Your task to perform on an android device: change the clock style Image 0: 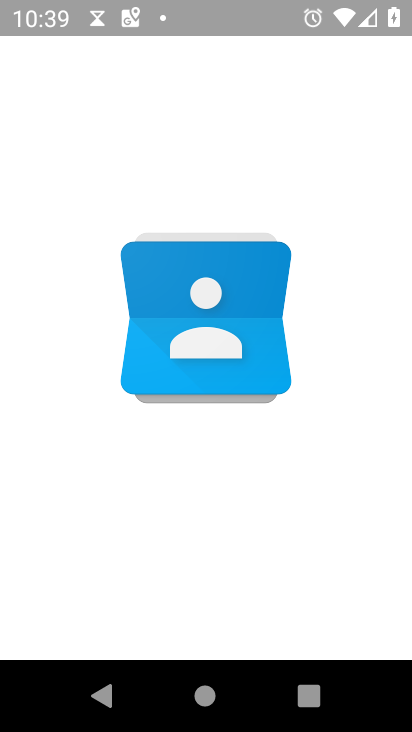
Step 0: press back button
Your task to perform on an android device: change the clock style Image 1: 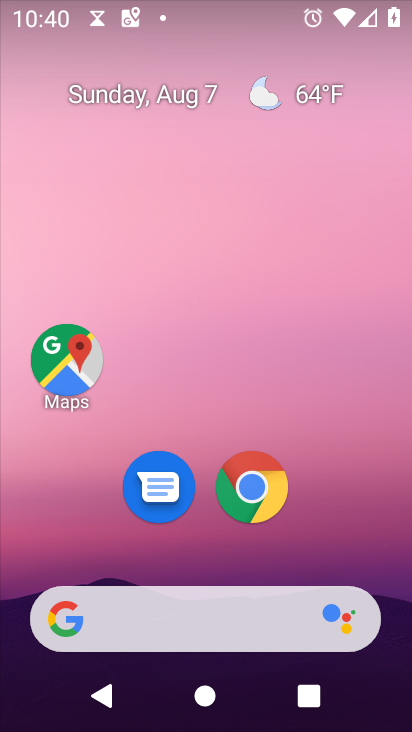
Step 1: drag from (392, 666) to (336, 104)
Your task to perform on an android device: change the clock style Image 2: 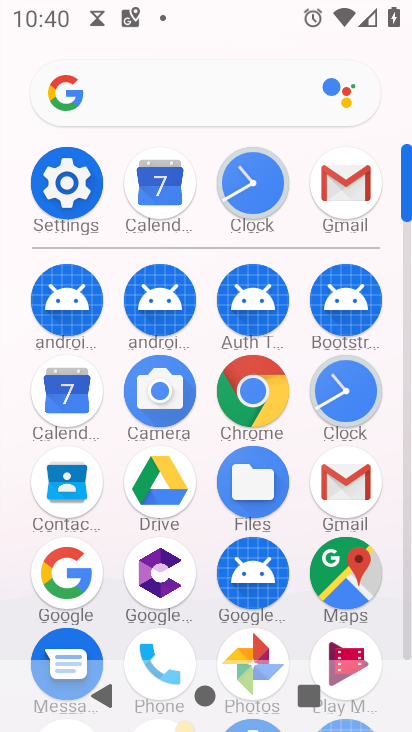
Step 2: click (332, 368)
Your task to perform on an android device: change the clock style Image 3: 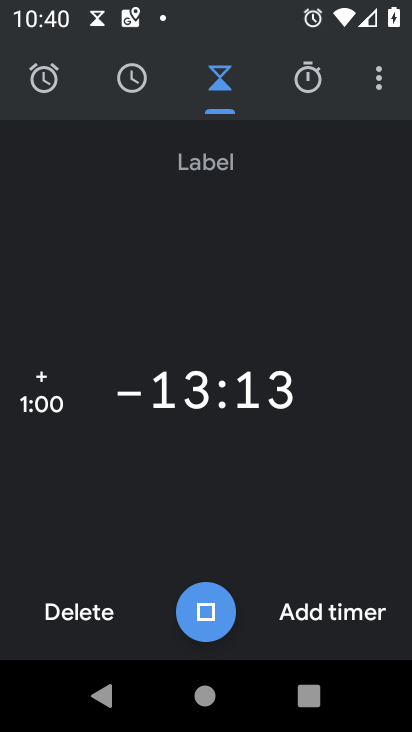
Step 3: click (376, 80)
Your task to perform on an android device: change the clock style Image 4: 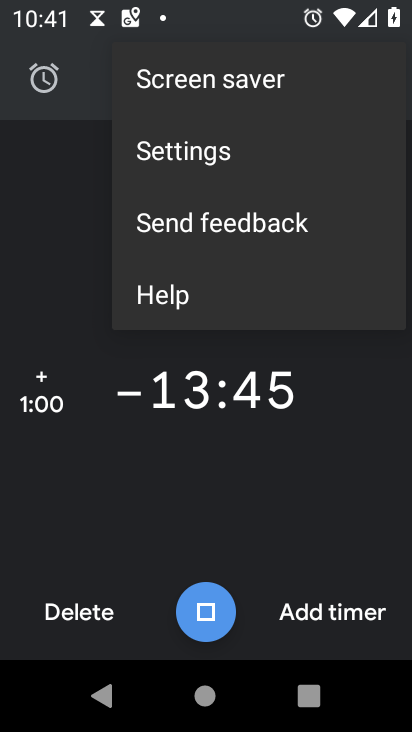
Step 4: click (149, 161)
Your task to perform on an android device: change the clock style Image 5: 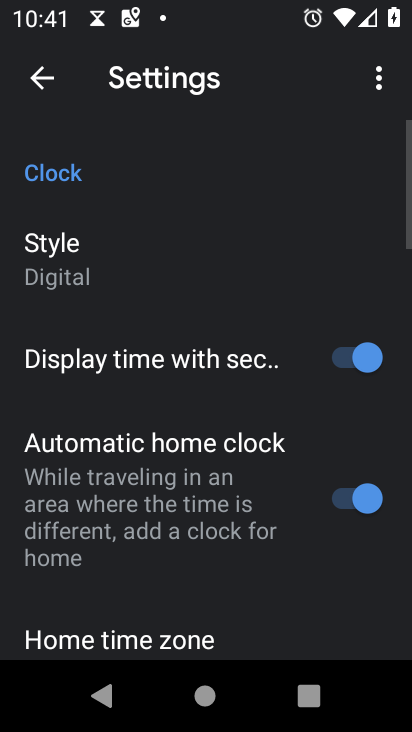
Step 5: click (39, 258)
Your task to perform on an android device: change the clock style Image 6: 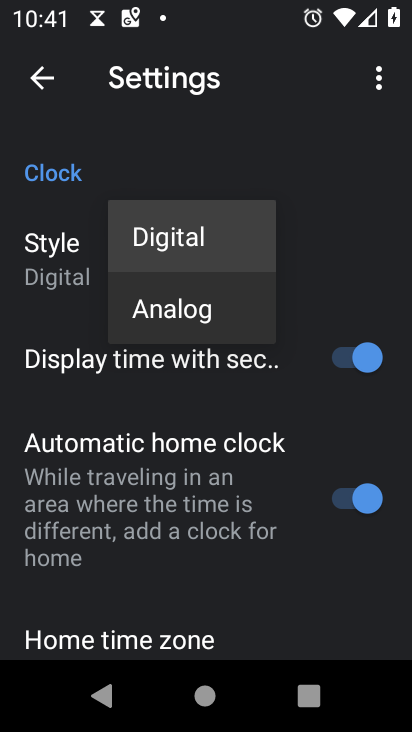
Step 6: click (157, 312)
Your task to perform on an android device: change the clock style Image 7: 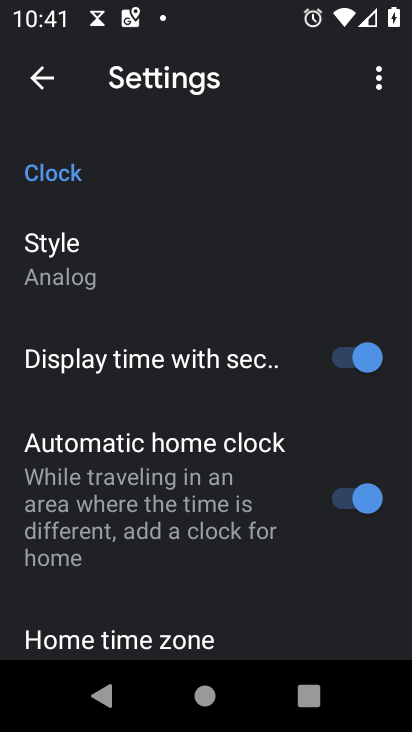
Step 7: task complete